Your task to perform on an android device: Go to CNN.com Image 0: 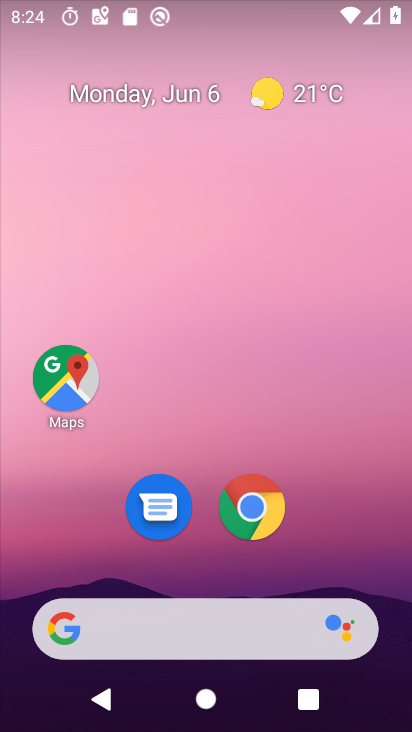
Step 0: click (261, 507)
Your task to perform on an android device: Go to CNN.com Image 1: 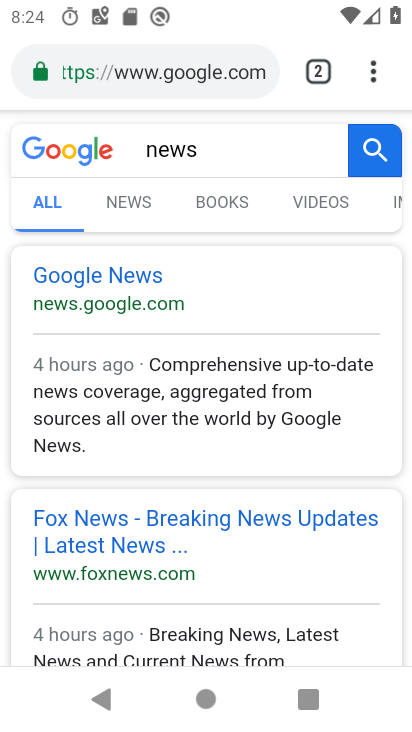
Step 1: click (196, 82)
Your task to perform on an android device: Go to CNN.com Image 2: 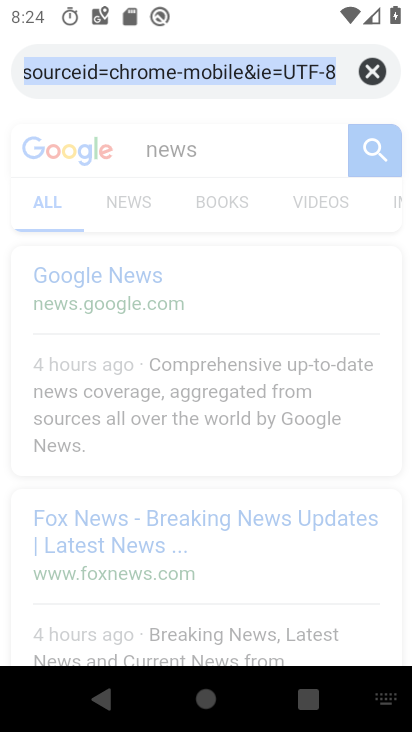
Step 2: click (372, 76)
Your task to perform on an android device: Go to CNN.com Image 3: 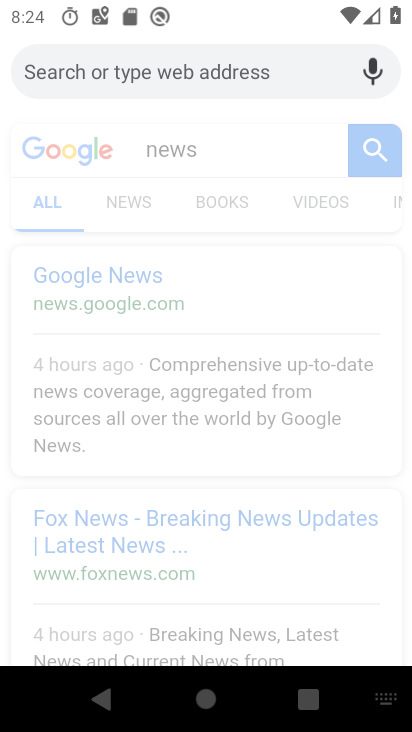
Step 3: type " CNN.com"
Your task to perform on an android device: Go to CNN.com Image 4: 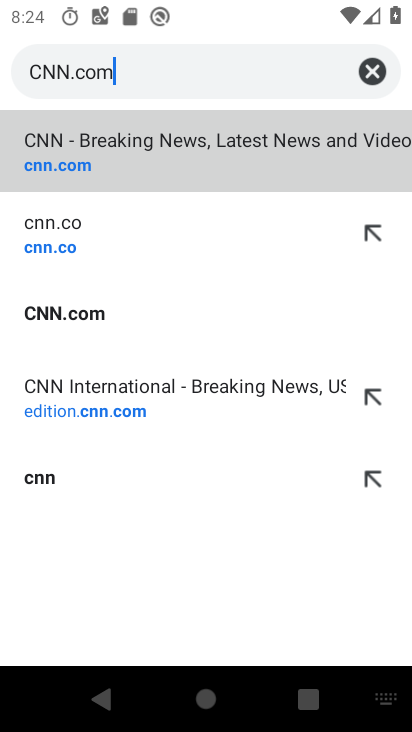
Step 4: type ""
Your task to perform on an android device: Go to CNN.com Image 5: 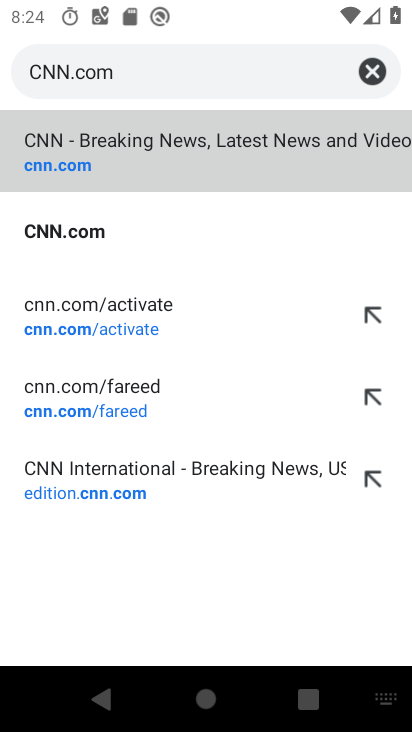
Step 5: click (206, 134)
Your task to perform on an android device: Go to CNN.com Image 6: 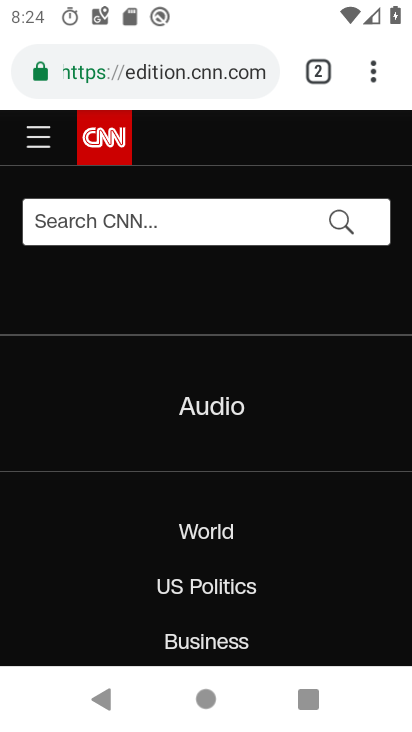
Step 6: task complete